Your task to perform on an android device: install app "Microsoft Excel" Image 0: 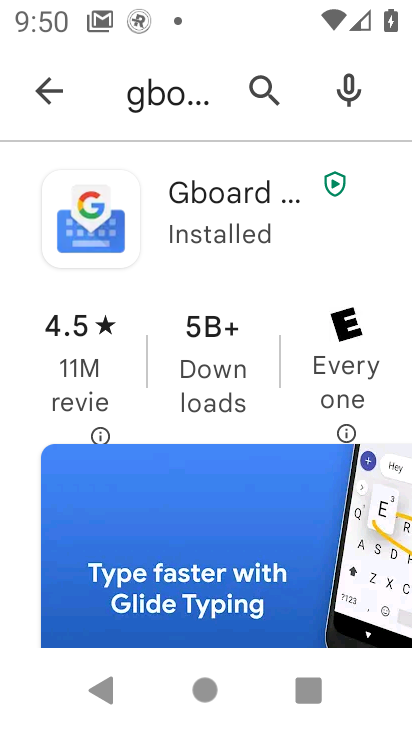
Step 0: press home button
Your task to perform on an android device: install app "Microsoft Excel" Image 1: 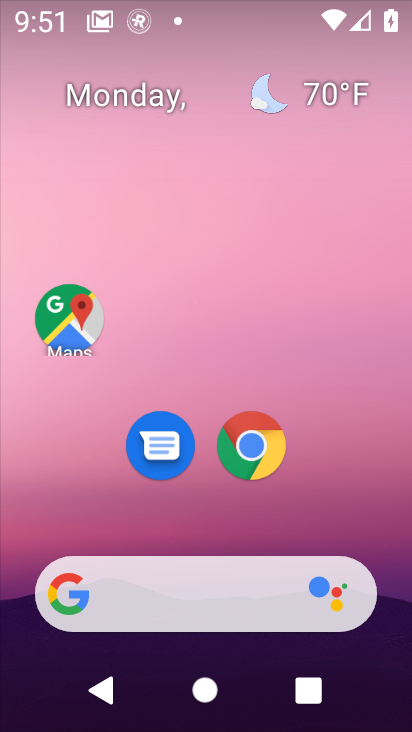
Step 1: drag from (204, 557) to (227, 112)
Your task to perform on an android device: install app "Microsoft Excel" Image 2: 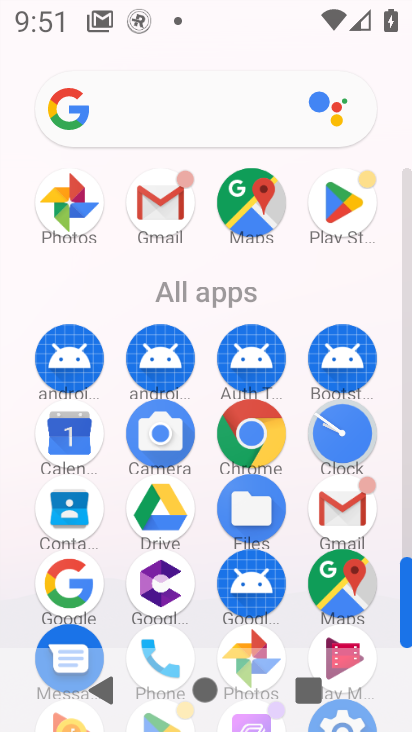
Step 2: click (357, 208)
Your task to perform on an android device: install app "Microsoft Excel" Image 3: 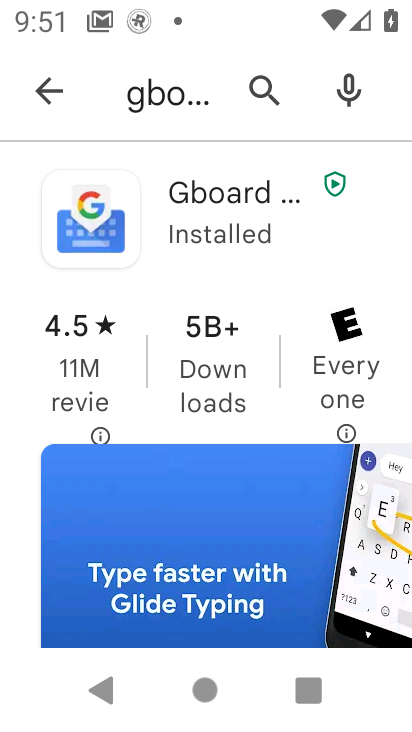
Step 3: click (54, 88)
Your task to perform on an android device: install app "Microsoft Excel" Image 4: 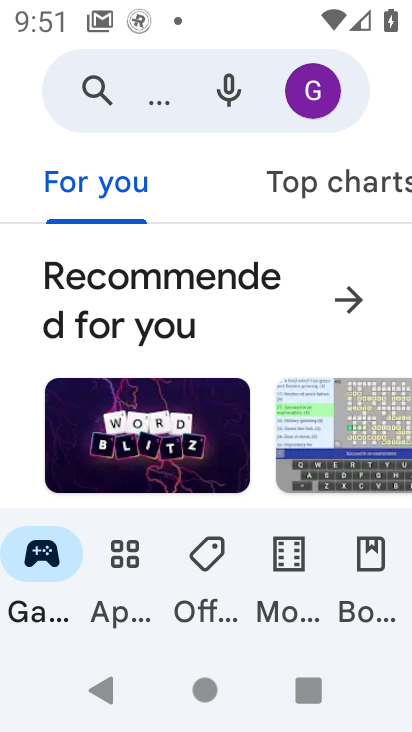
Step 4: click (75, 85)
Your task to perform on an android device: install app "Microsoft Excel" Image 5: 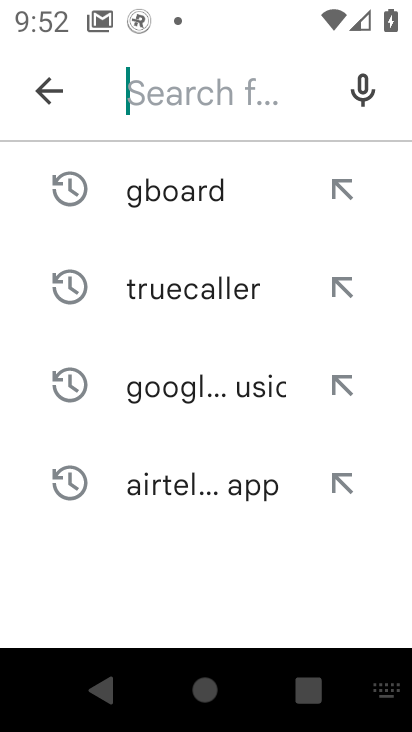
Step 5: type "Microsoft Excel"
Your task to perform on an android device: install app "Microsoft Excel" Image 6: 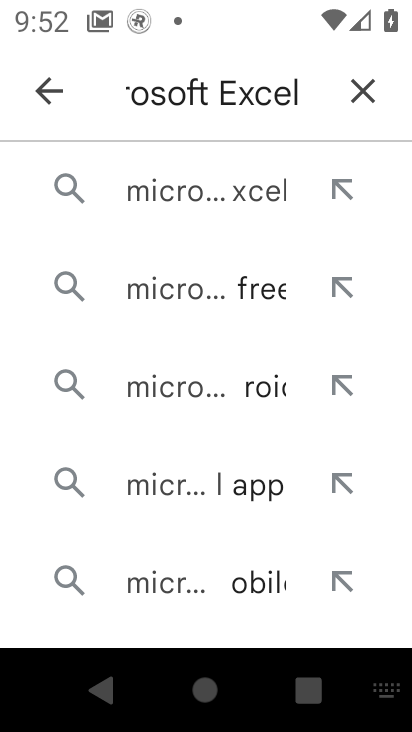
Step 6: click (220, 195)
Your task to perform on an android device: install app "Microsoft Excel" Image 7: 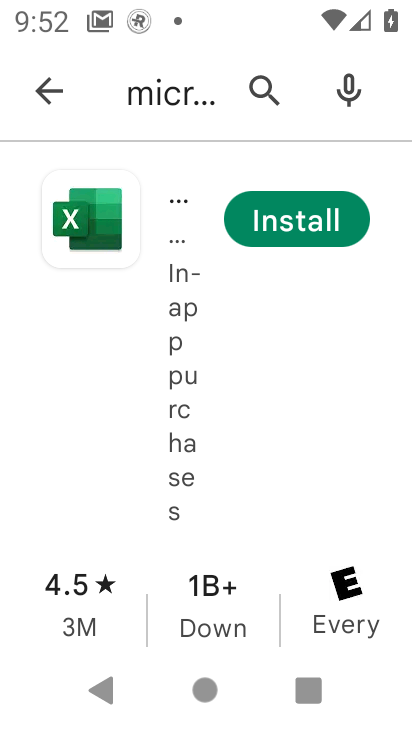
Step 7: click (328, 232)
Your task to perform on an android device: install app "Microsoft Excel" Image 8: 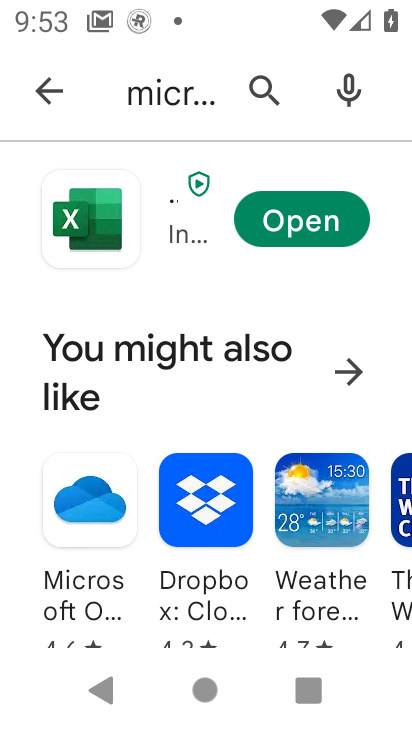
Step 8: task complete